Your task to perform on an android device: Open location settings Image 0: 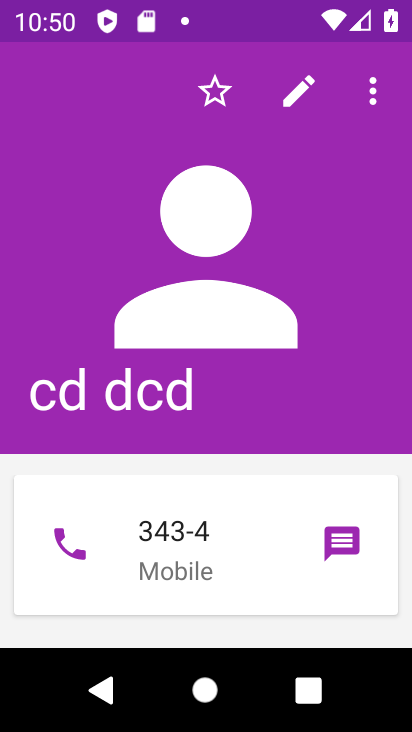
Step 0: press home button
Your task to perform on an android device: Open location settings Image 1: 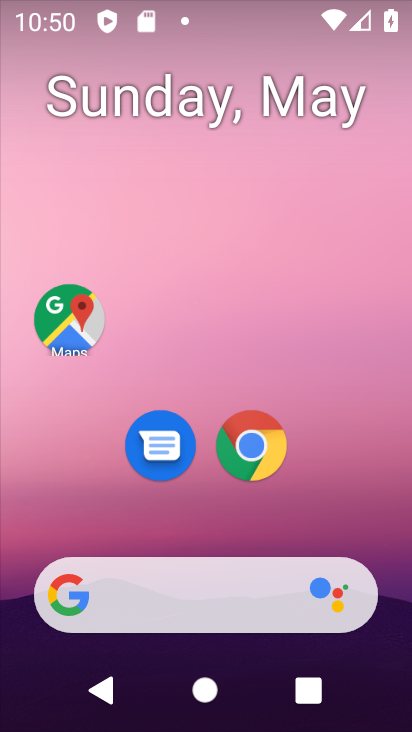
Step 1: drag from (194, 522) to (235, 135)
Your task to perform on an android device: Open location settings Image 2: 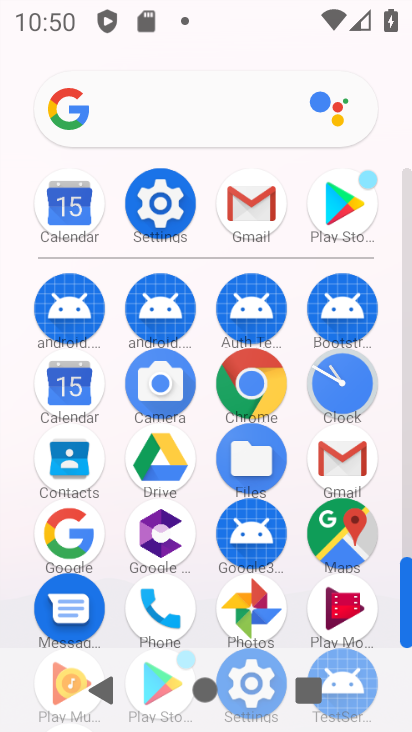
Step 2: click (164, 201)
Your task to perform on an android device: Open location settings Image 3: 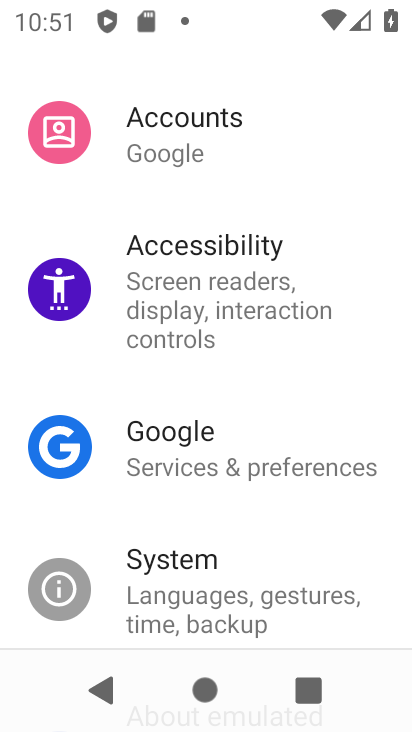
Step 3: drag from (269, 548) to (297, 111)
Your task to perform on an android device: Open location settings Image 4: 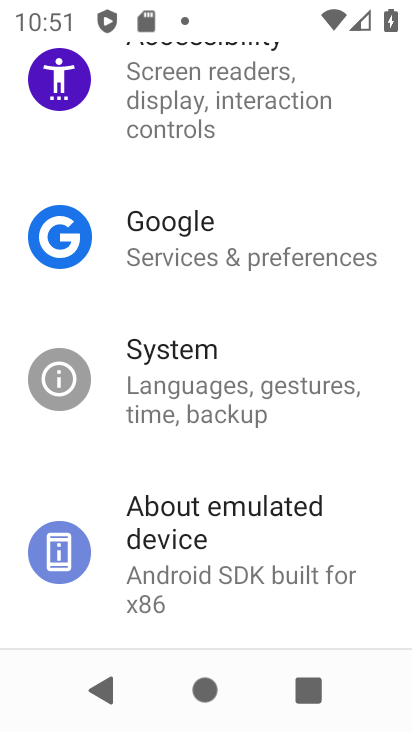
Step 4: drag from (266, 183) to (275, 595)
Your task to perform on an android device: Open location settings Image 5: 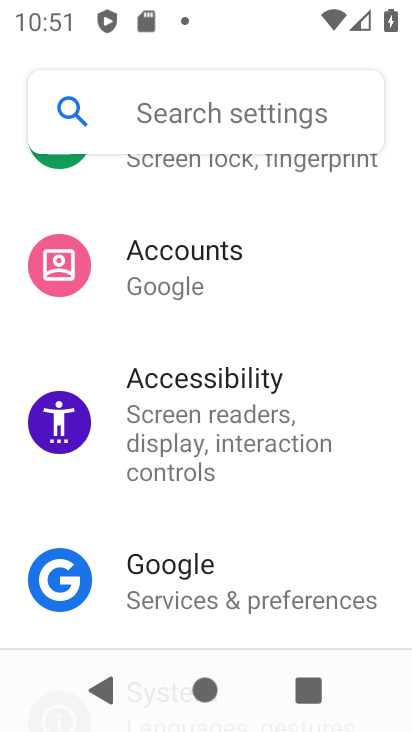
Step 5: drag from (267, 227) to (248, 573)
Your task to perform on an android device: Open location settings Image 6: 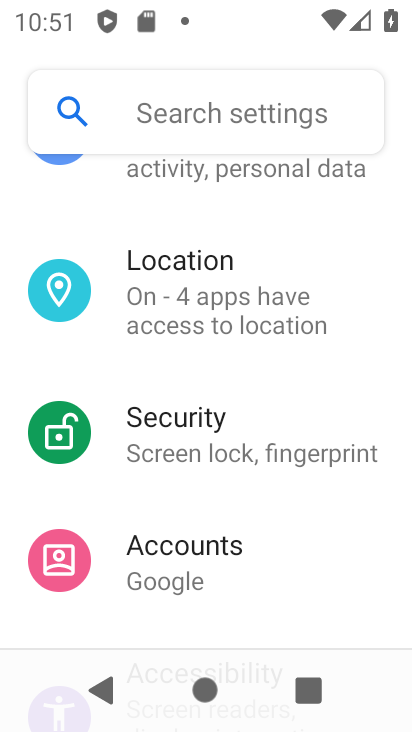
Step 6: click (208, 302)
Your task to perform on an android device: Open location settings Image 7: 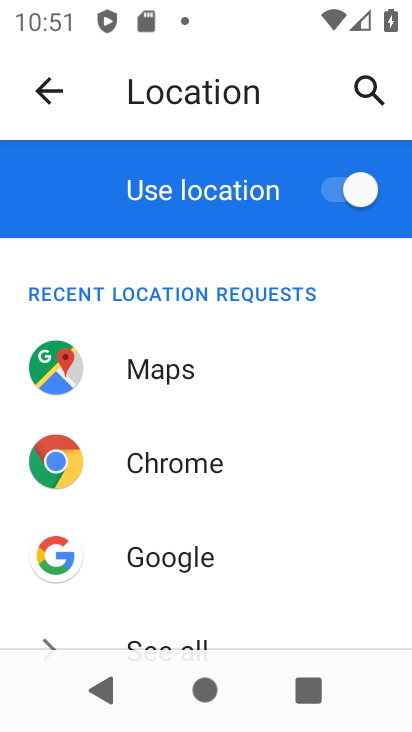
Step 7: task complete